Your task to perform on an android device: find photos in the google photos app Image 0: 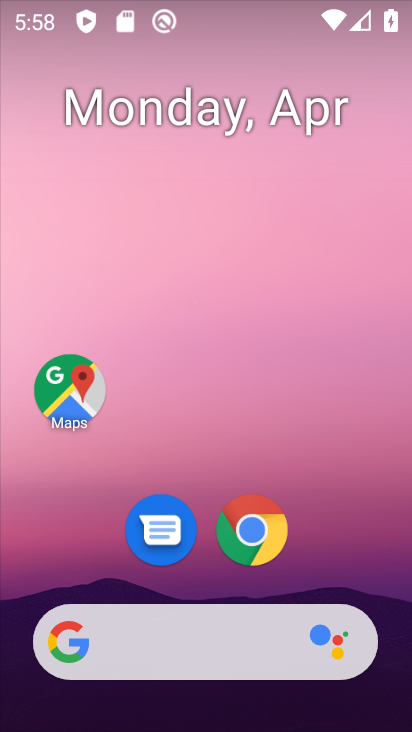
Step 0: drag from (213, 579) to (193, 107)
Your task to perform on an android device: find photos in the google photos app Image 1: 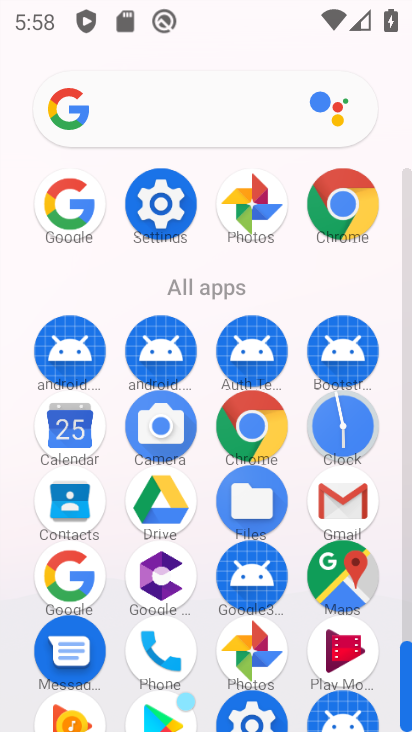
Step 1: click (252, 201)
Your task to perform on an android device: find photos in the google photos app Image 2: 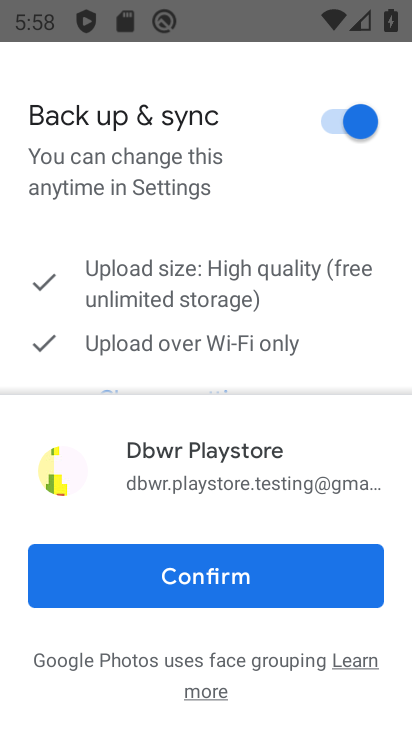
Step 2: click (203, 569)
Your task to perform on an android device: find photos in the google photos app Image 3: 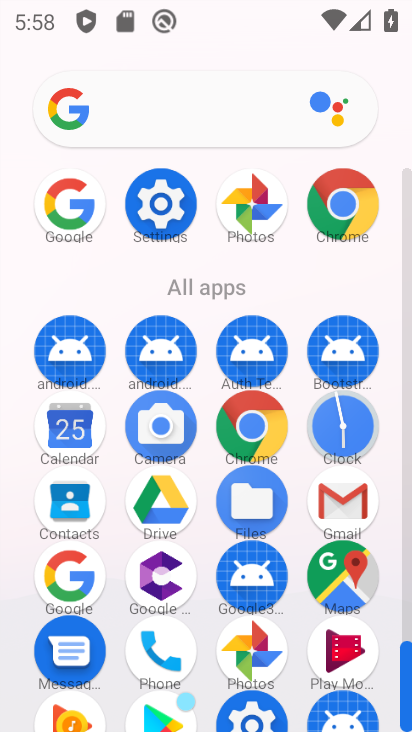
Step 3: click (246, 216)
Your task to perform on an android device: find photos in the google photos app Image 4: 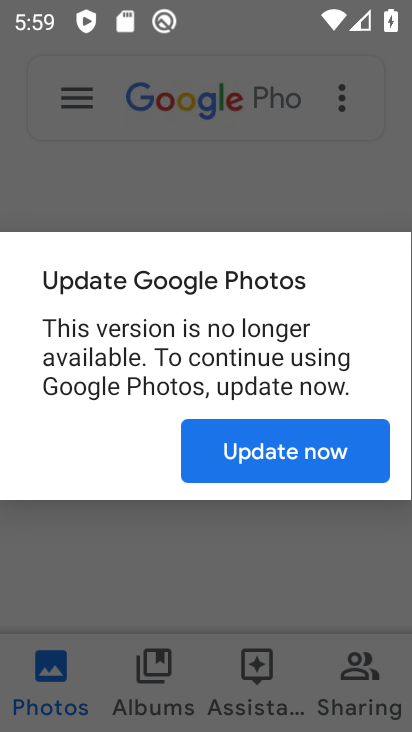
Step 4: click (273, 430)
Your task to perform on an android device: find photos in the google photos app Image 5: 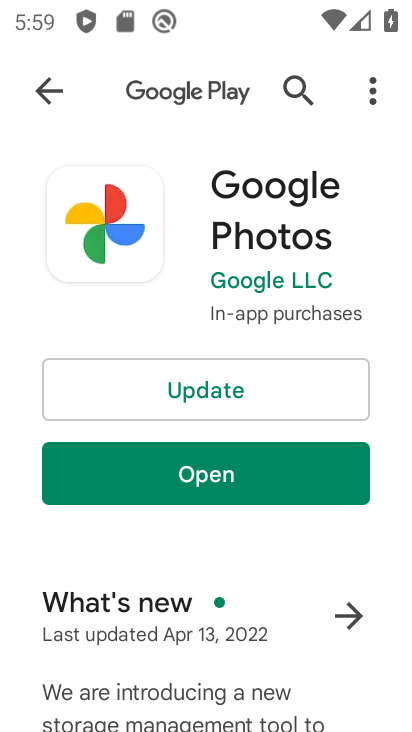
Step 5: click (214, 398)
Your task to perform on an android device: find photos in the google photos app Image 6: 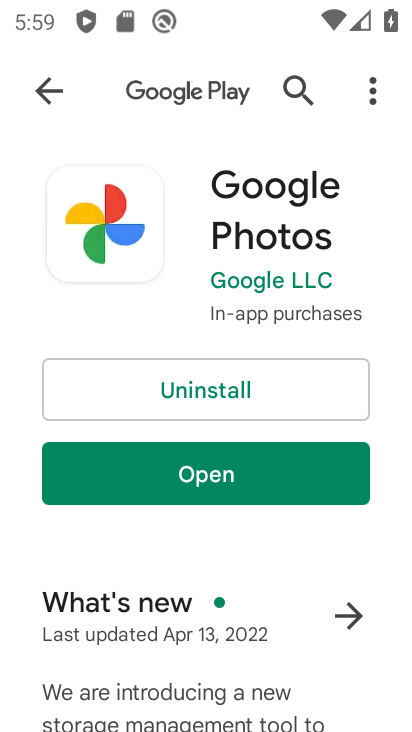
Step 6: click (232, 481)
Your task to perform on an android device: find photos in the google photos app Image 7: 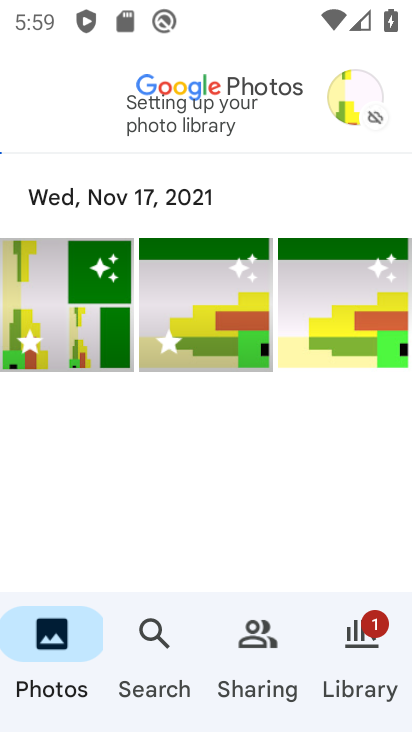
Step 7: click (79, 311)
Your task to perform on an android device: find photos in the google photos app Image 8: 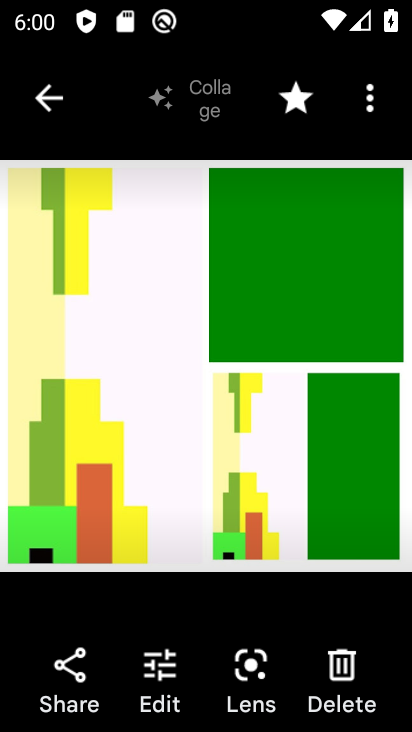
Step 8: task complete